Your task to perform on an android device: empty trash in the gmail app Image 0: 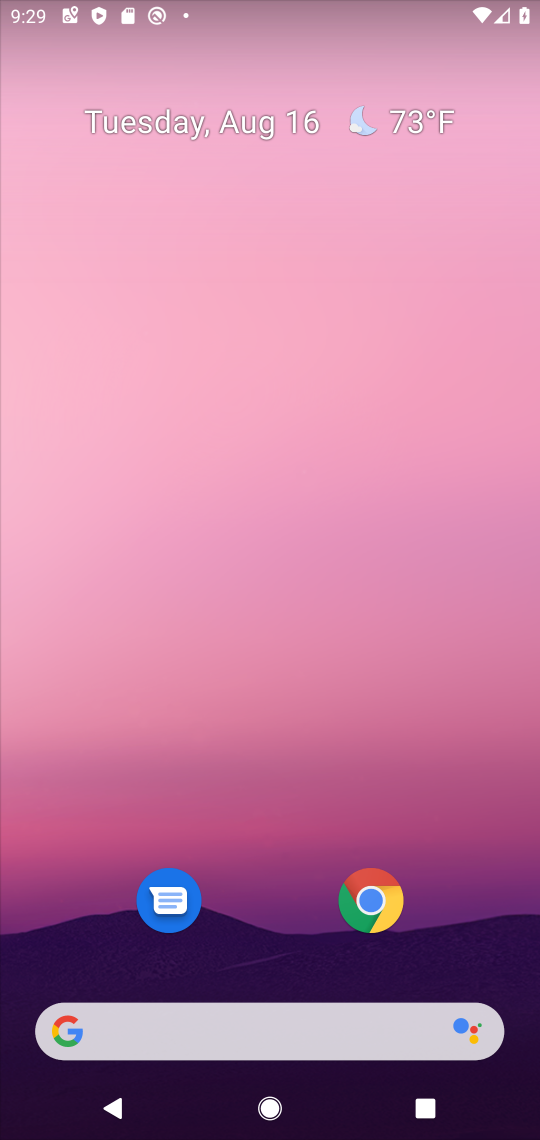
Step 0: drag from (250, 1023) to (241, 345)
Your task to perform on an android device: empty trash in the gmail app Image 1: 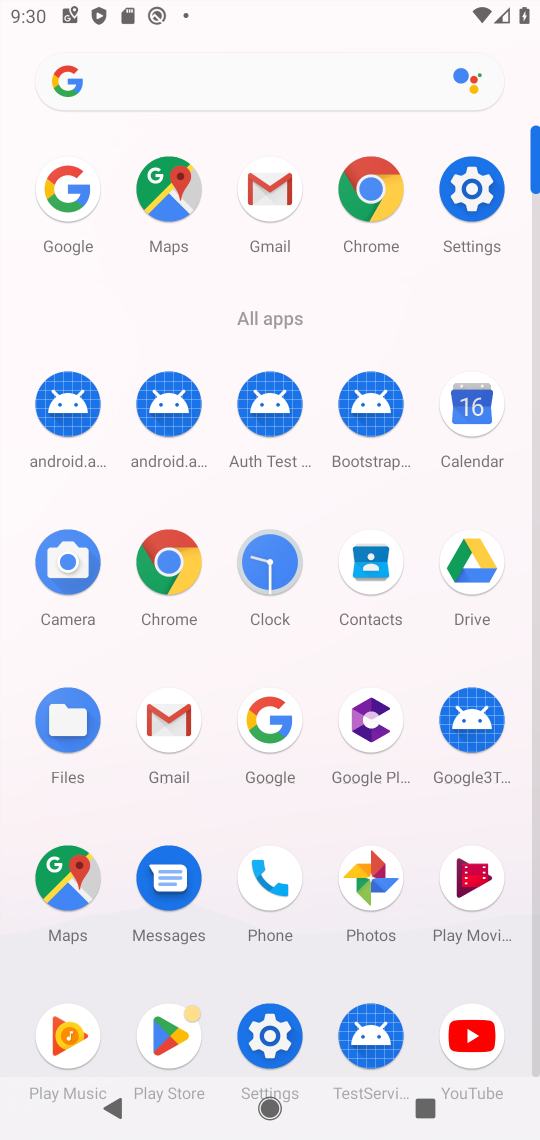
Step 1: click (172, 720)
Your task to perform on an android device: empty trash in the gmail app Image 2: 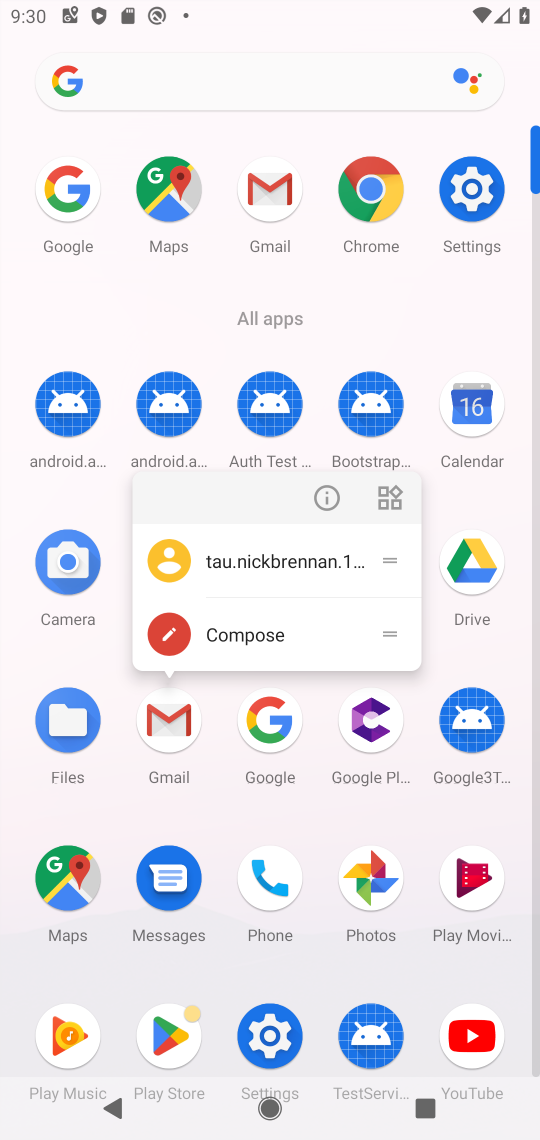
Step 2: click (169, 716)
Your task to perform on an android device: empty trash in the gmail app Image 3: 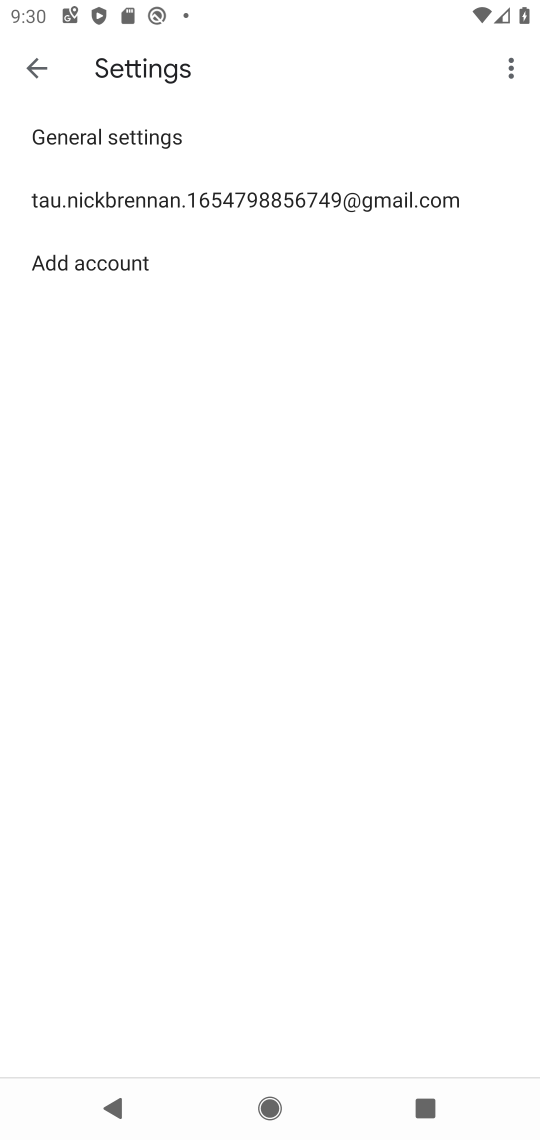
Step 3: click (23, 58)
Your task to perform on an android device: empty trash in the gmail app Image 4: 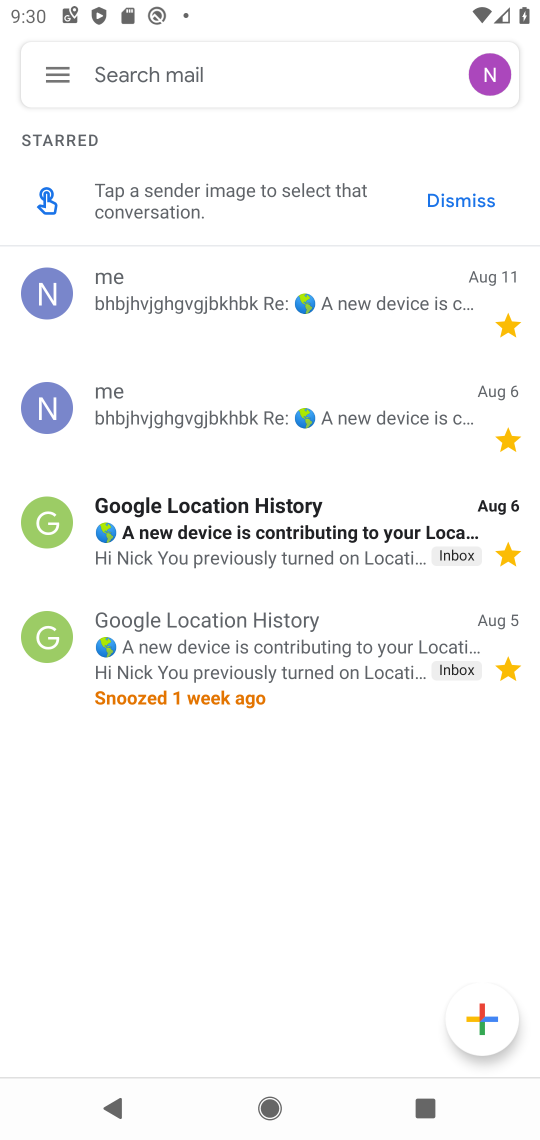
Step 4: click (61, 75)
Your task to perform on an android device: empty trash in the gmail app Image 5: 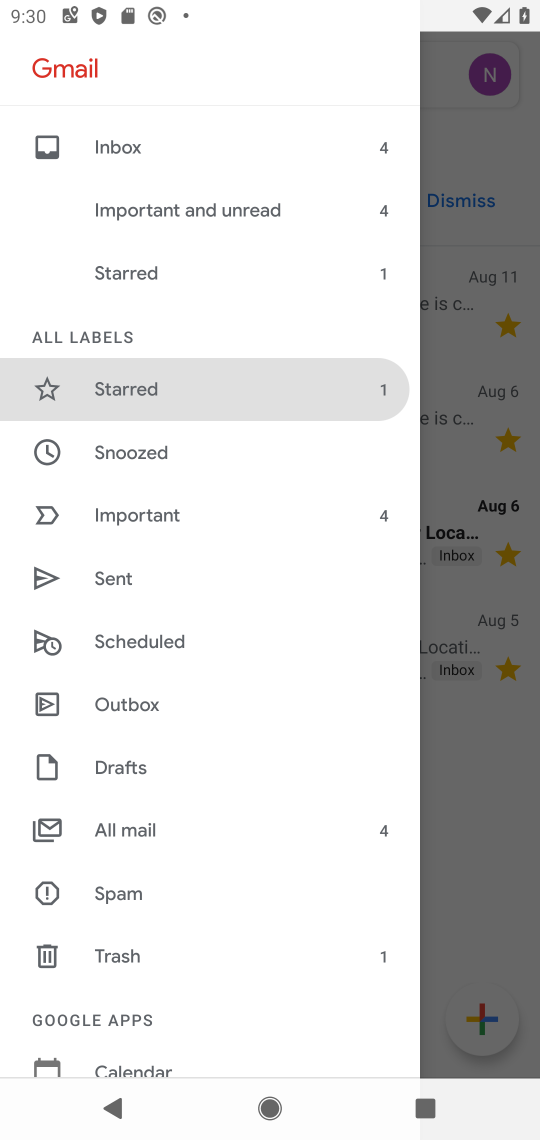
Step 5: click (76, 959)
Your task to perform on an android device: empty trash in the gmail app Image 6: 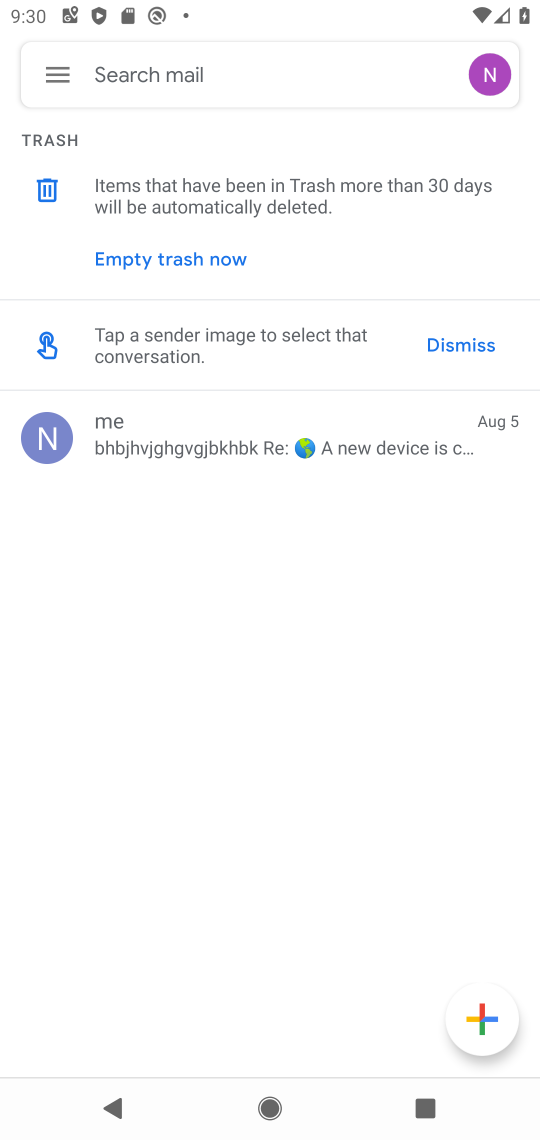
Step 6: task complete